Your task to perform on an android device: turn off data saver in the chrome app Image 0: 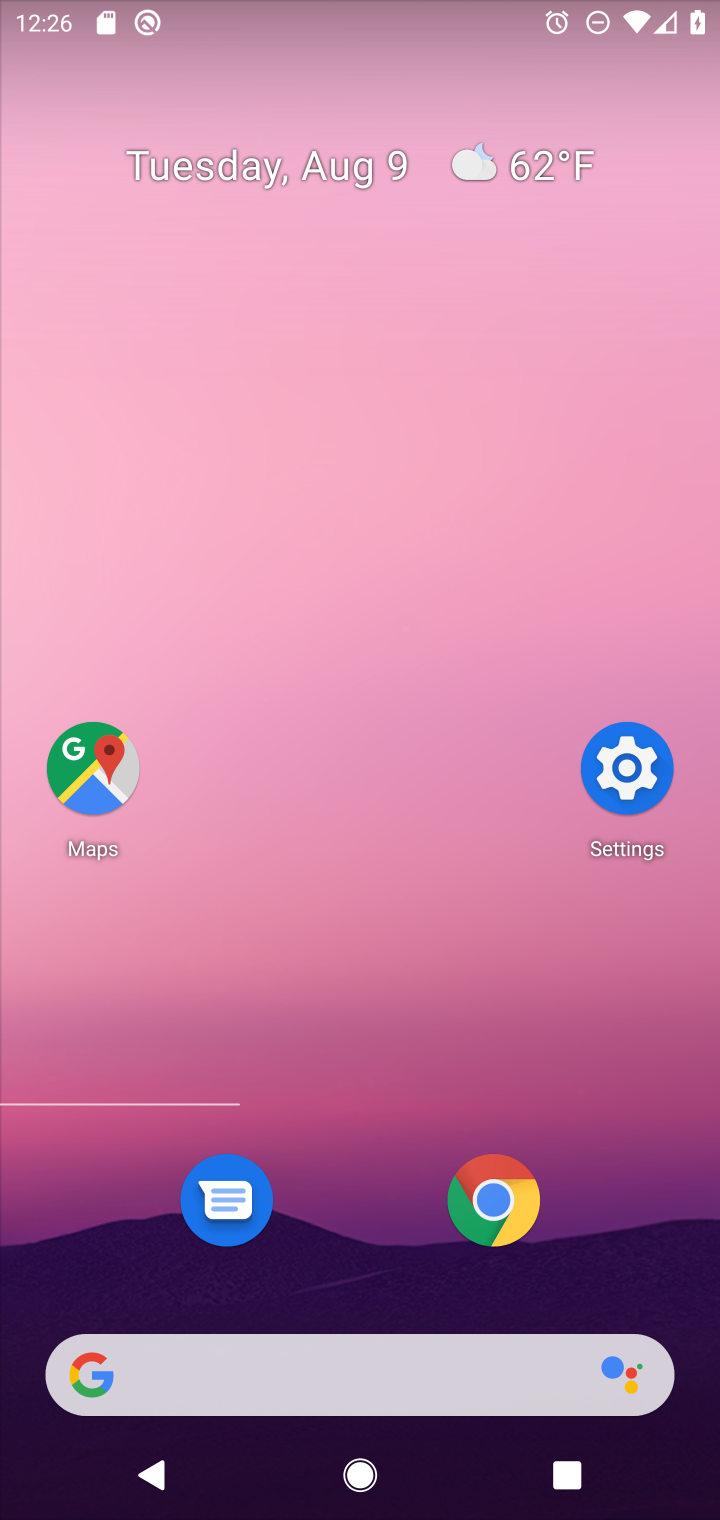
Step 0: click (493, 1185)
Your task to perform on an android device: turn off data saver in the chrome app Image 1: 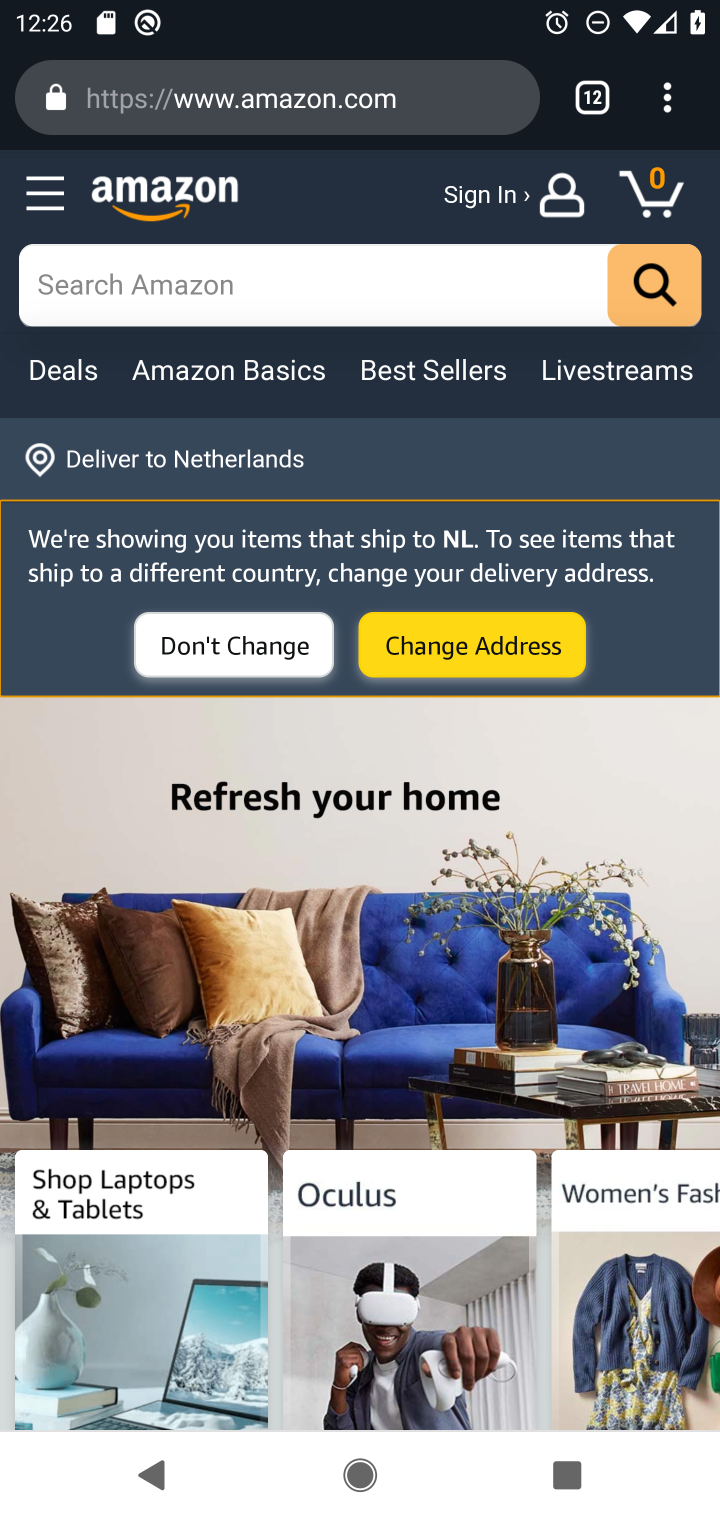
Step 1: drag from (676, 107) to (346, 1287)
Your task to perform on an android device: turn off data saver in the chrome app Image 2: 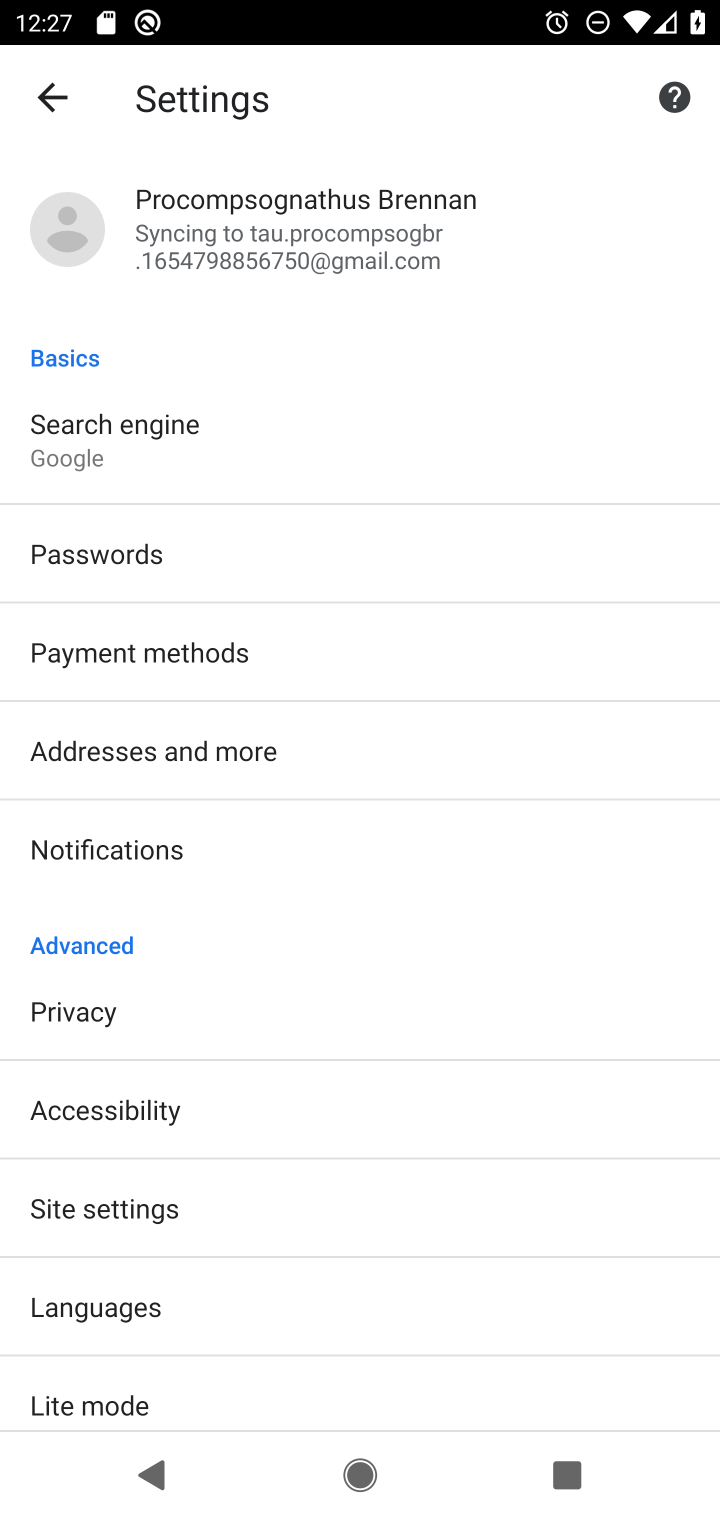
Step 2: click (146, 1390)
Your task to perform on an android device: turn off data saver in the chrome app Image 3: 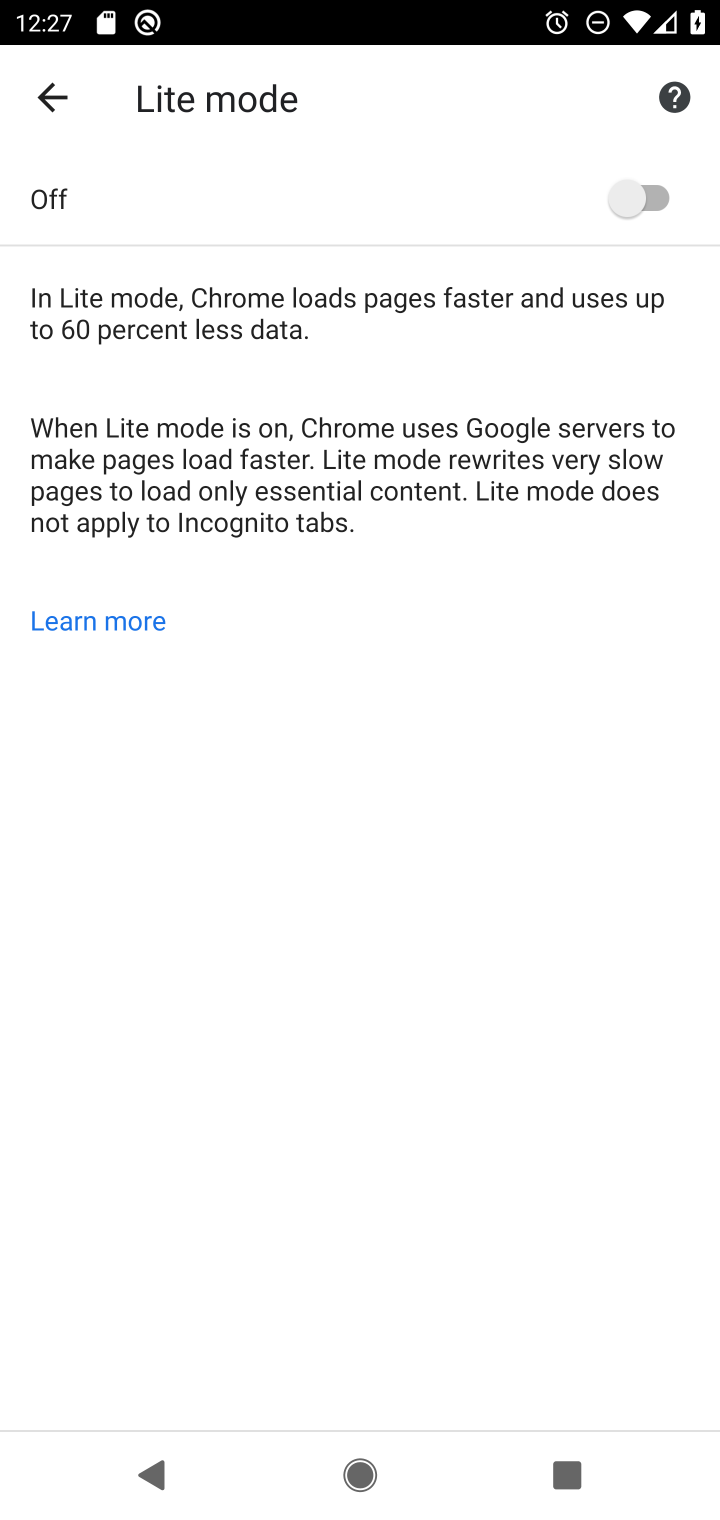
Step 3: task complete